Your task to perform on an android device: open app "Adobe Acrobat Reader" (install if not already installed) Image 0: 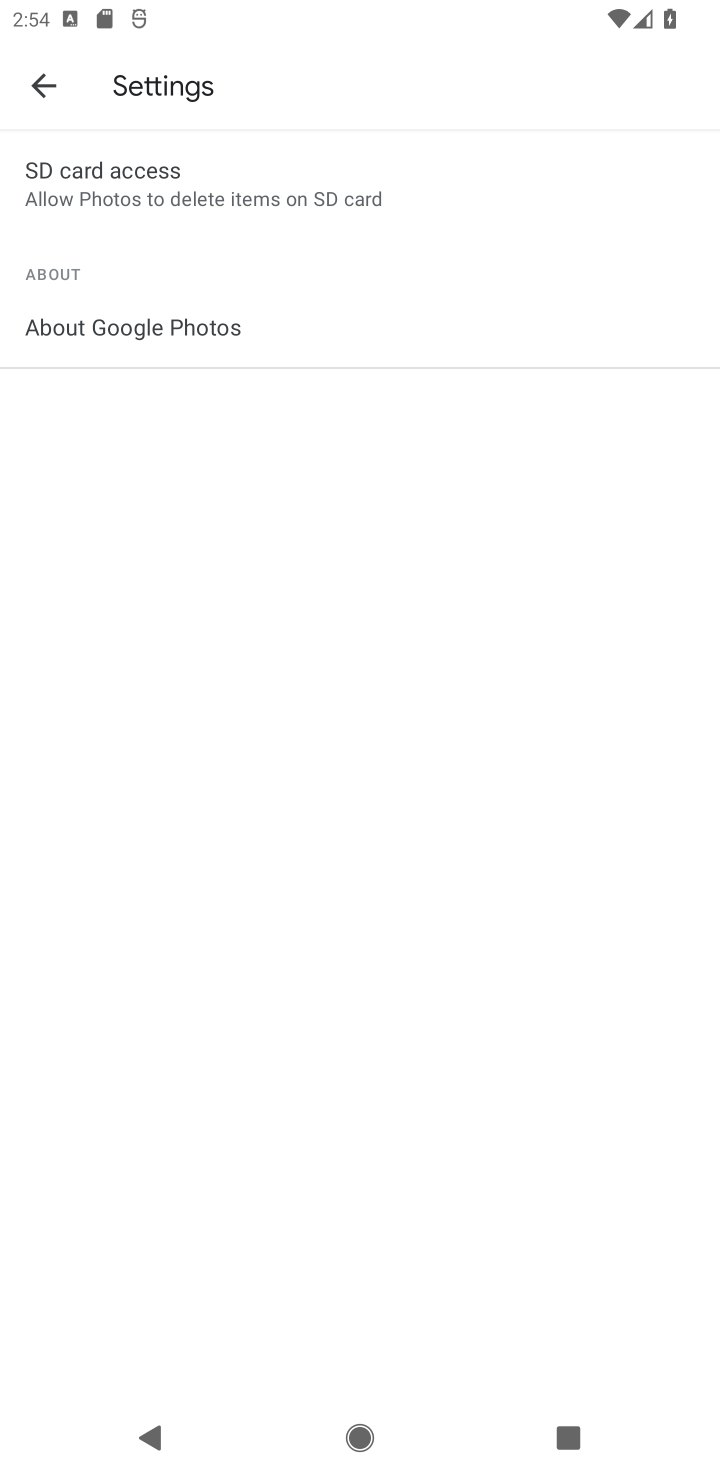
Step 0: press home button
Your task to perform on an android device: open app "Adobe Acrobat Reader" (install if not already installed) Image 1: 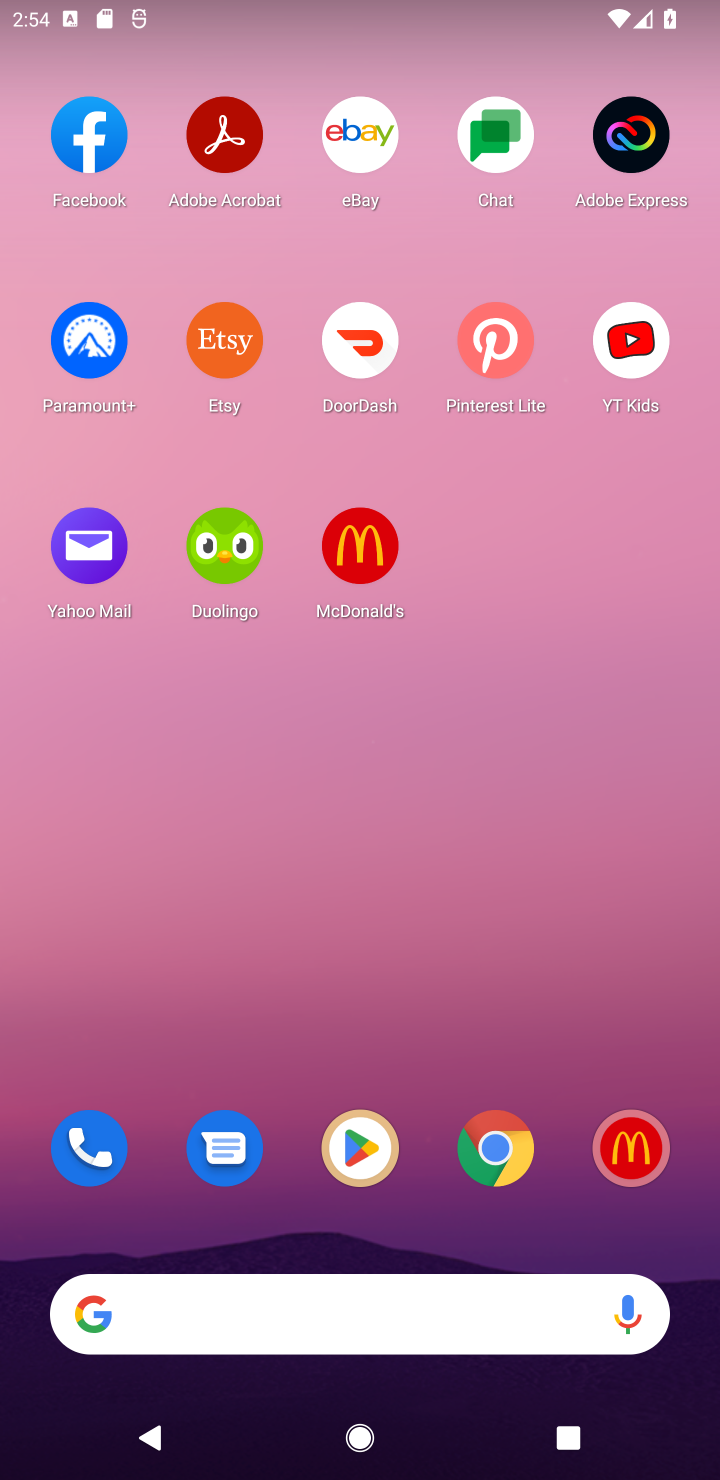
Step 1: drag from (408, 1241) to (567, 364)
Your task to perform on an android device: open app "Adobe Acrobat Reader" (install if not already installed) Image 2: 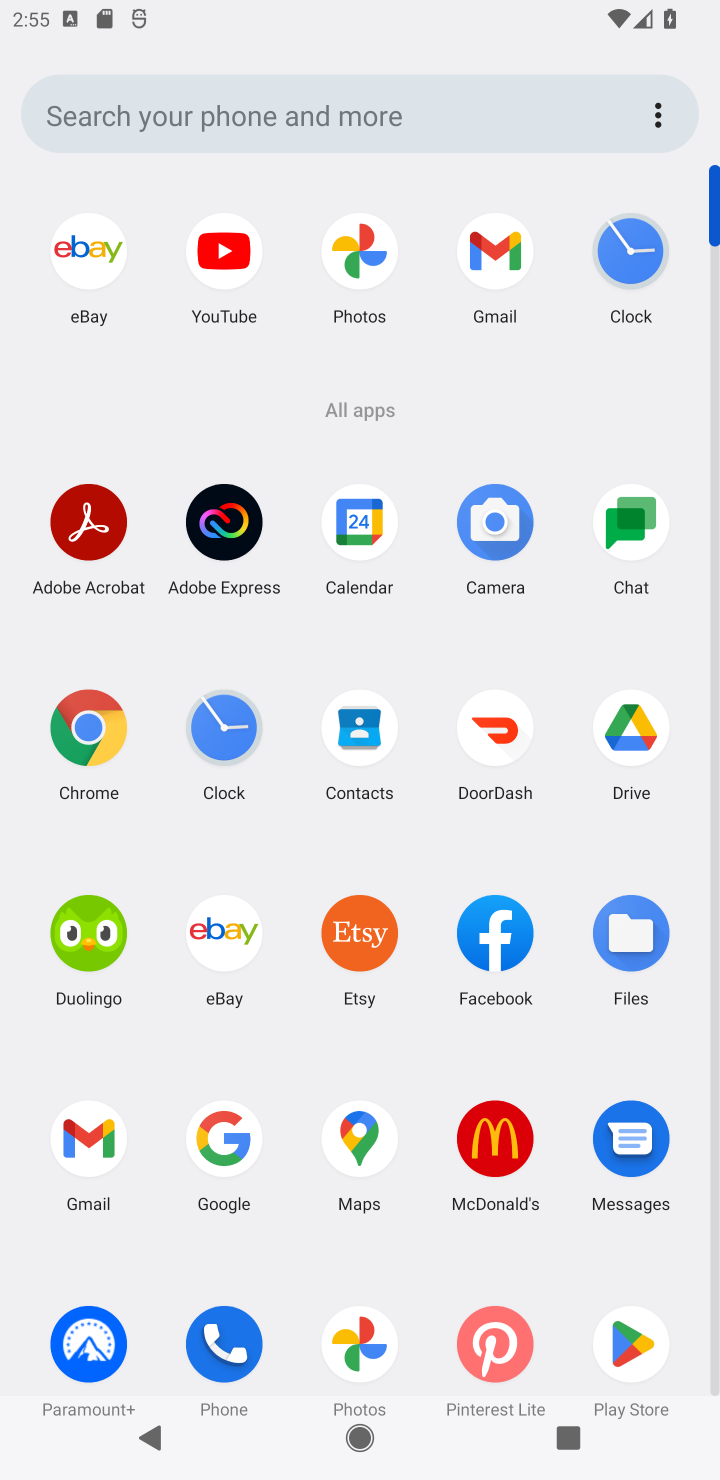
Step 2: click (631, 1342)
Your task to perform on an android device: open app "Adobe Acrobat Reader" (install if not already installed) Image 3: 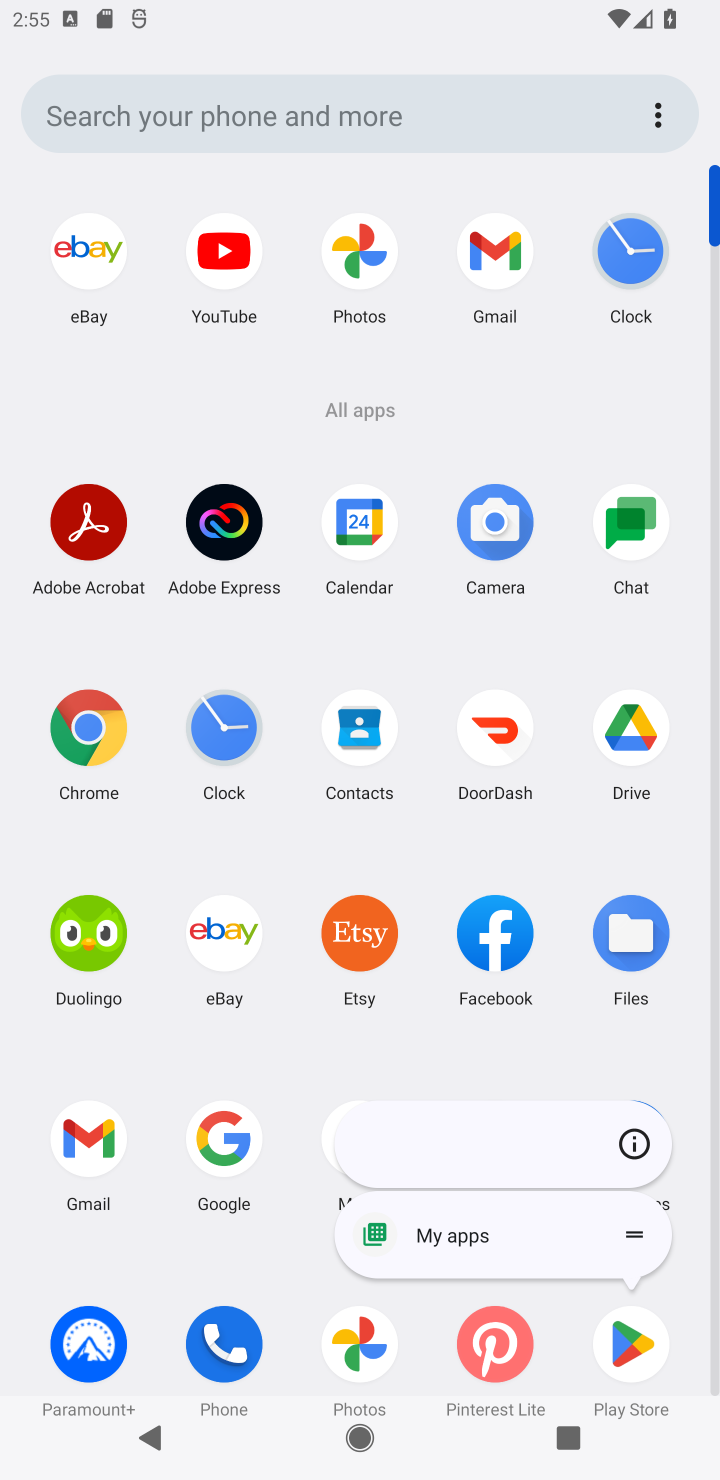
Step 3: click (631, 1342)
Your task to perform on an android device: open app "Adobe Acrobat Reader" (install if not already installed) Image 4: 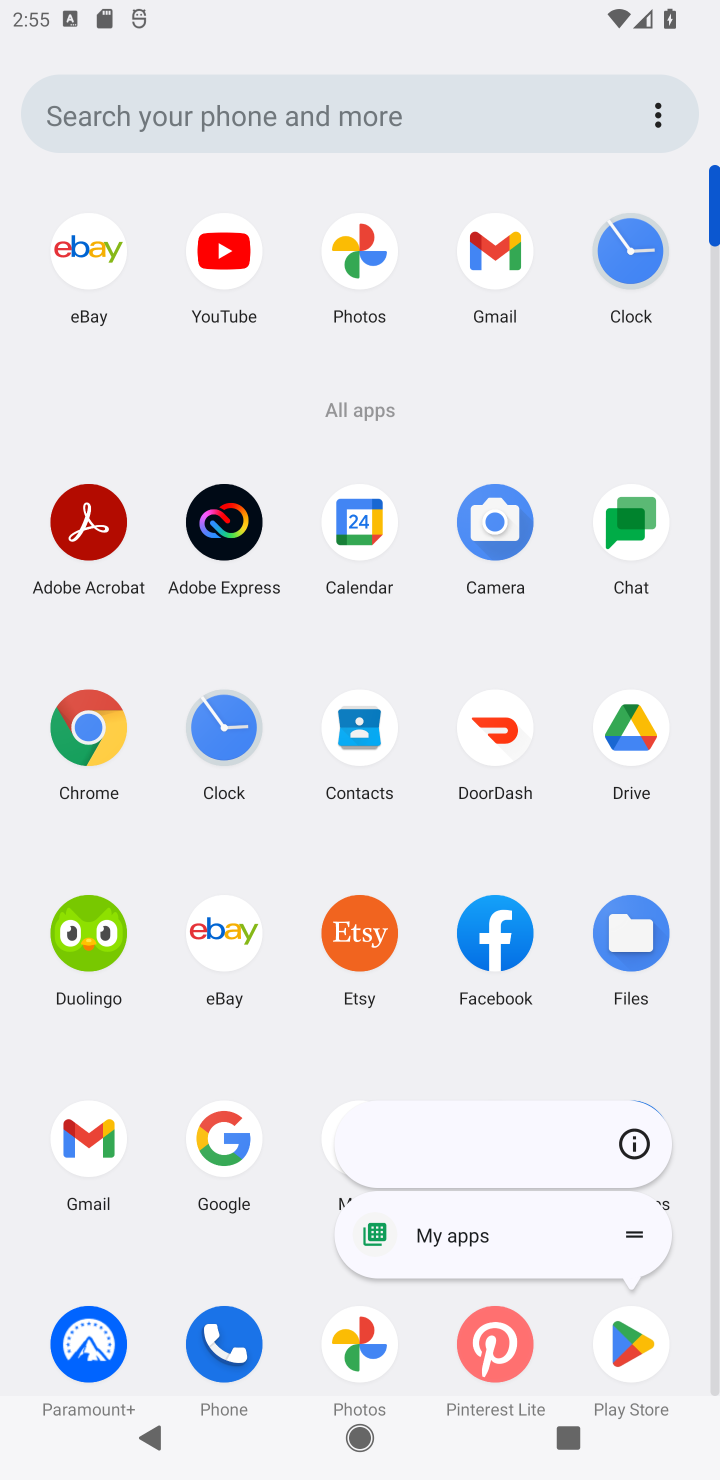
Step 4: click (631, 1342)
Your task to perform on an android device: open app "Adobe Acrobat Reader" (install if not already installed) Image 5: 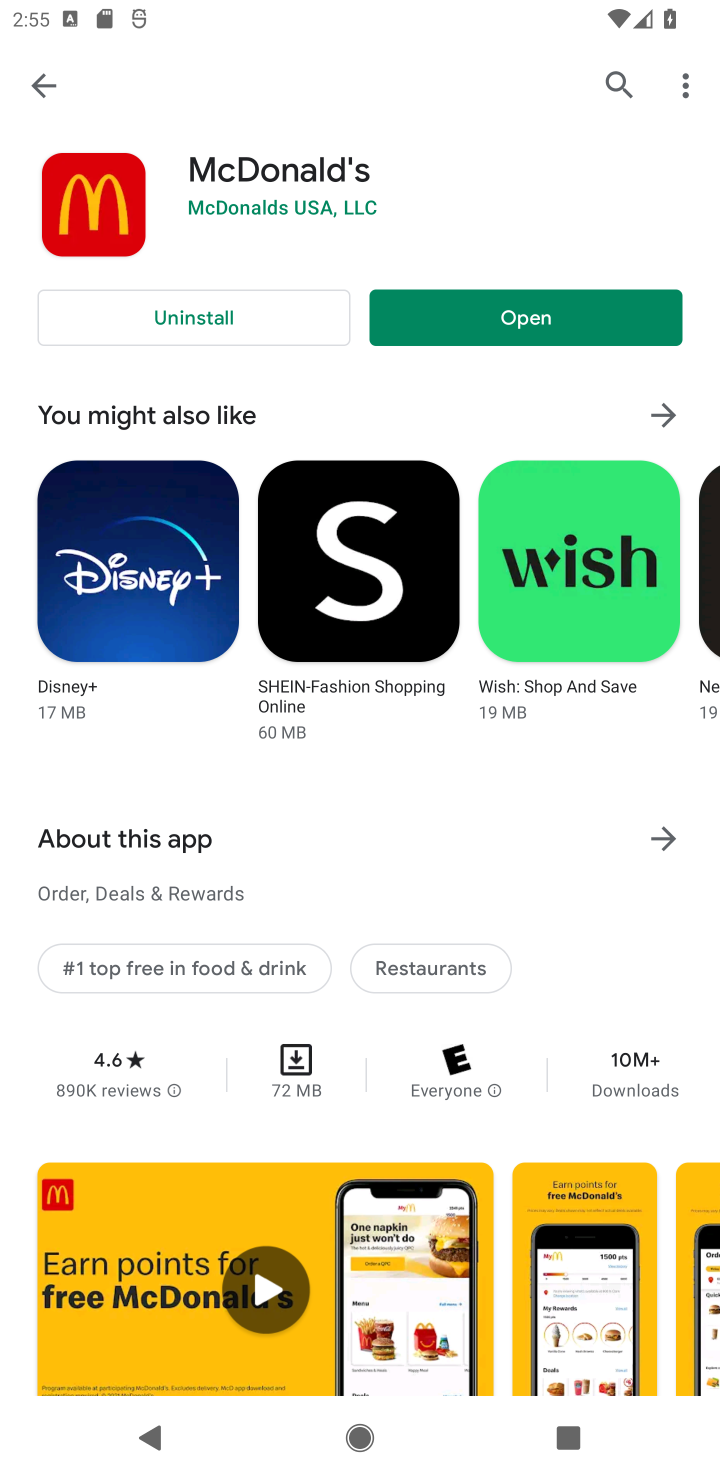
Step 5: click (29, 83)
Your task to perform on an android device: open app "Adobe Acrobat Reader" (install if not already installed) Image 6: 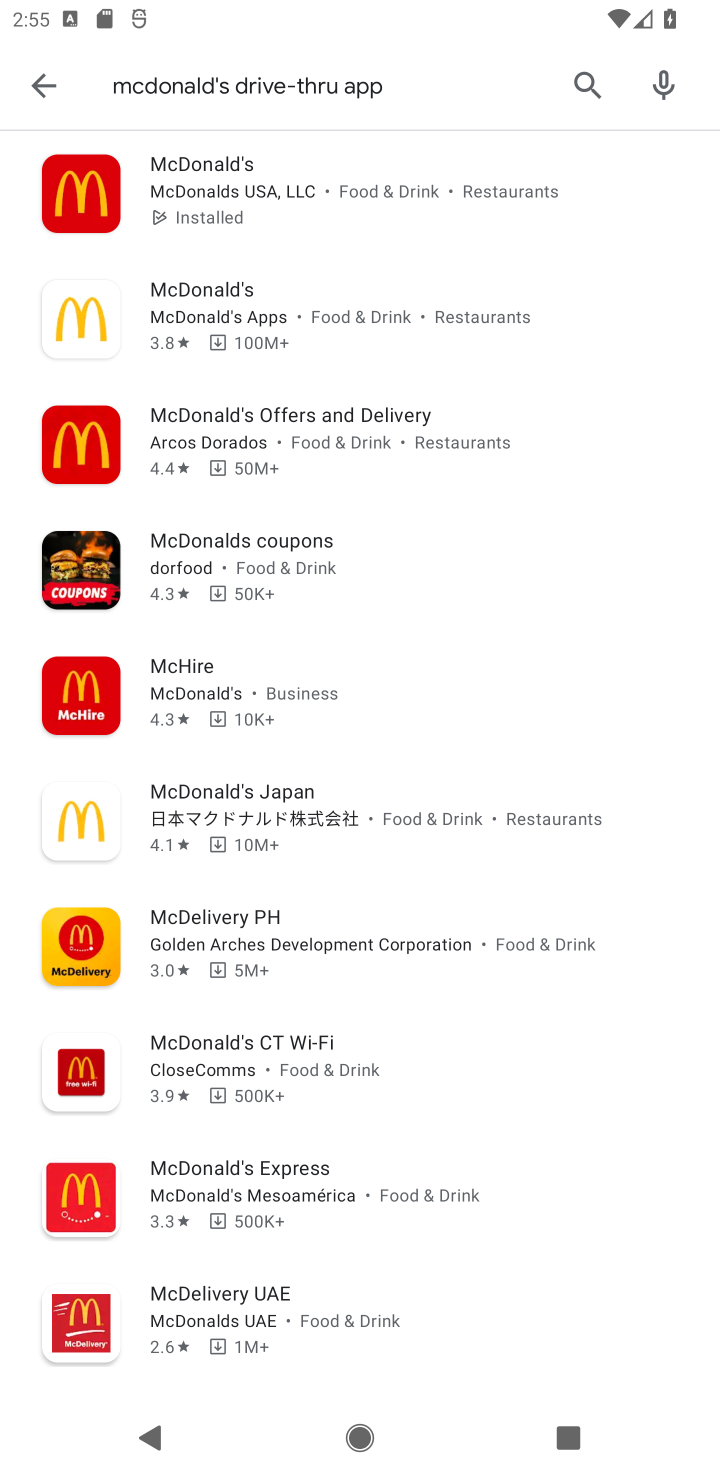
Step 6: click (584, 75)
Your task to perform on an android device: open app "Adobe Acrobat Reader" (install if not already installed) Image 7: 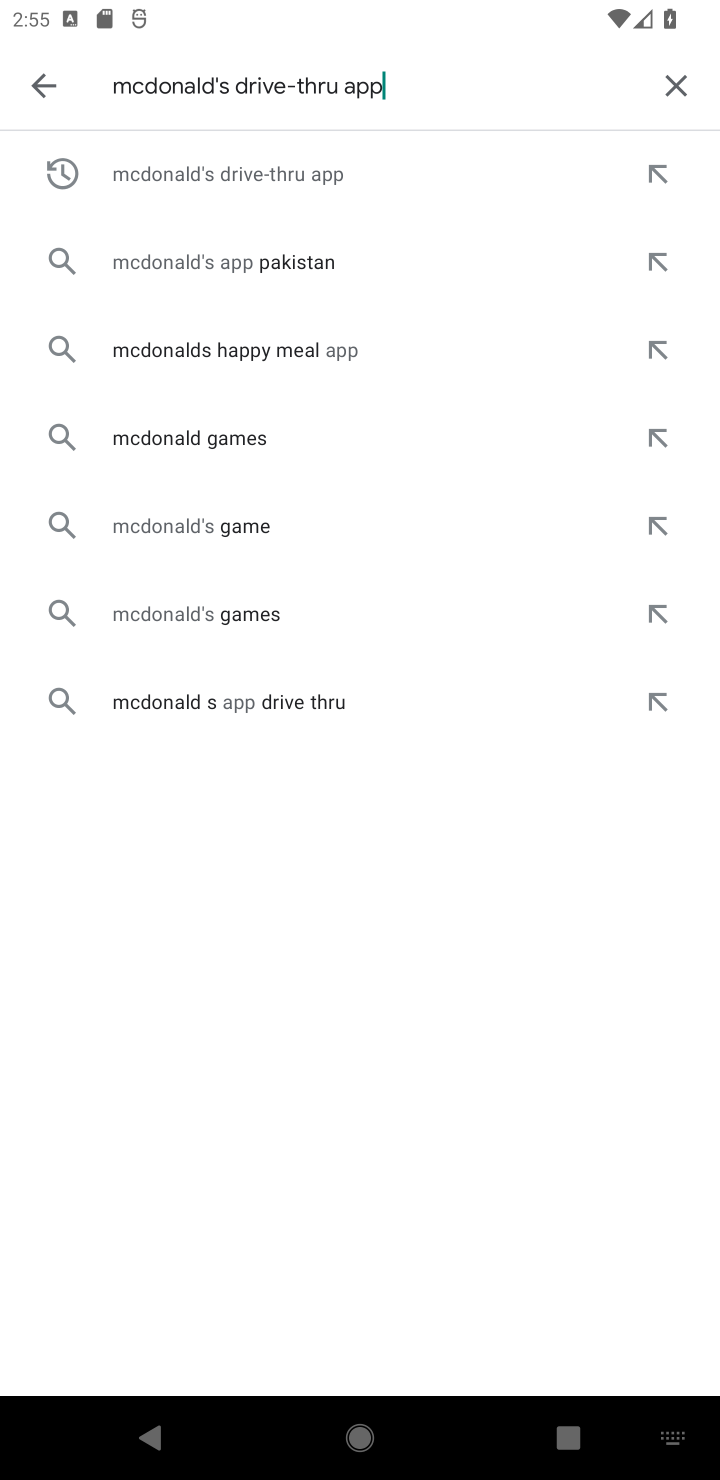
Step 7: click (680, 69)
Your task to perform on an android device: open app "Adobe Acrobat Reader" (install if not already installed) Image 8: 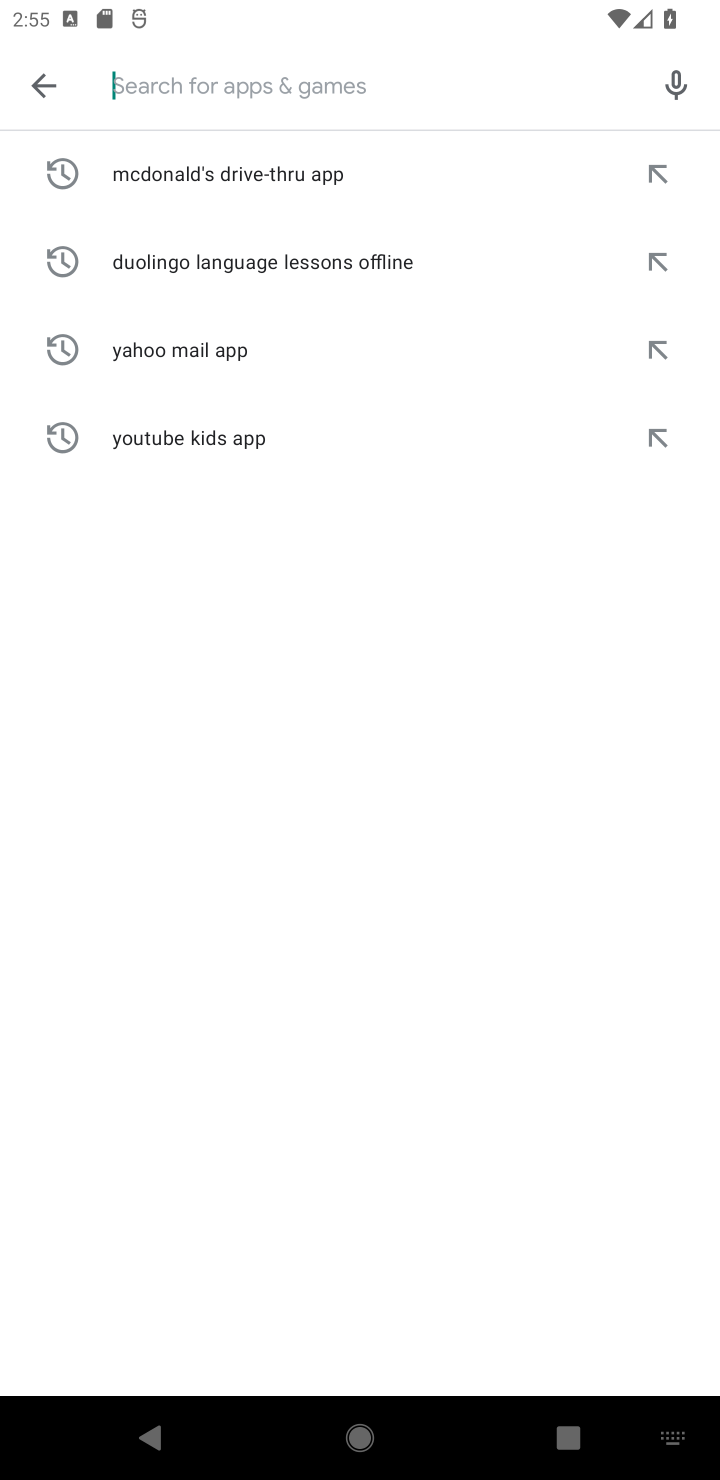
Step 8: click (285, 81)
Your task to perform on an android device: open app "Adobe Acrobat Reader" (install if not already installed) Image 9: 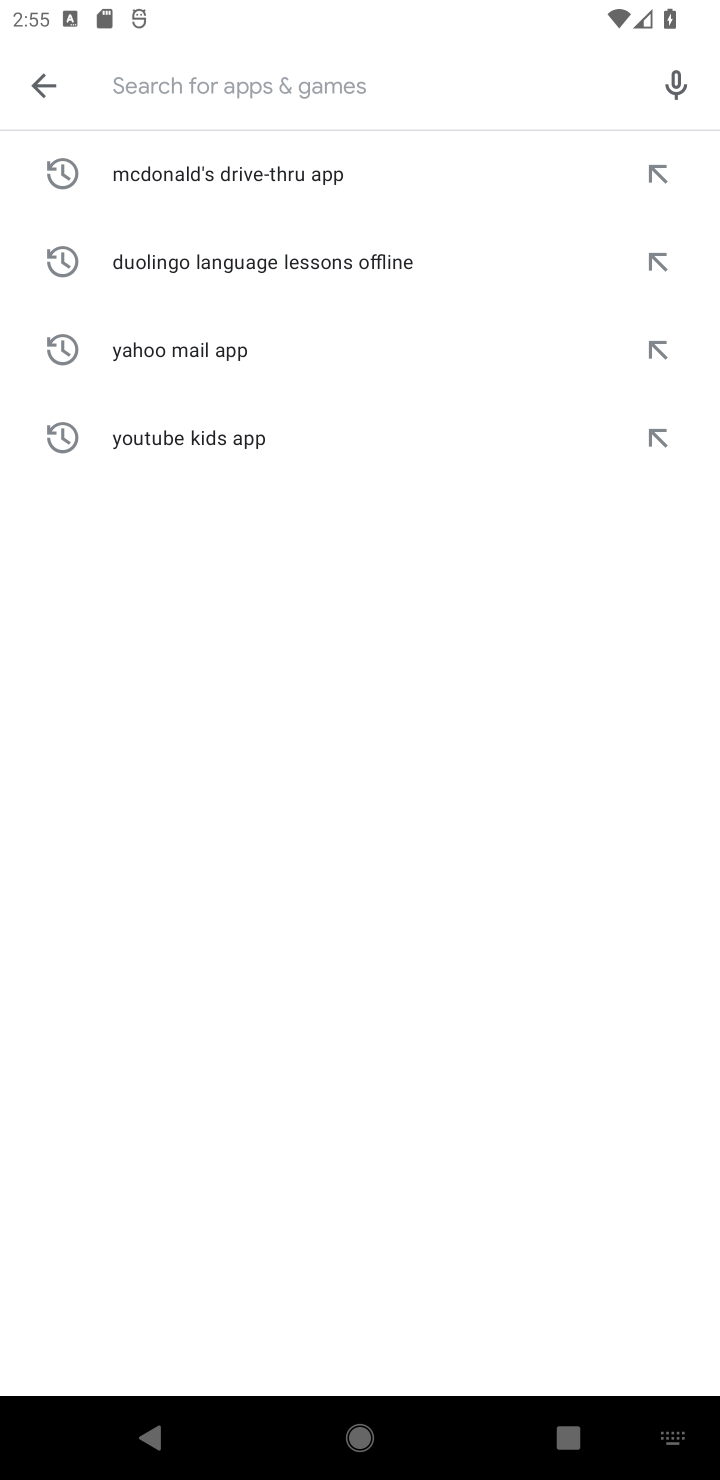
Step 9: type "Adobe Acrobat Reader "
Your task to perform on an android device: open app "Adobe Acrobat Reader" (install if not already installed) Image 10: 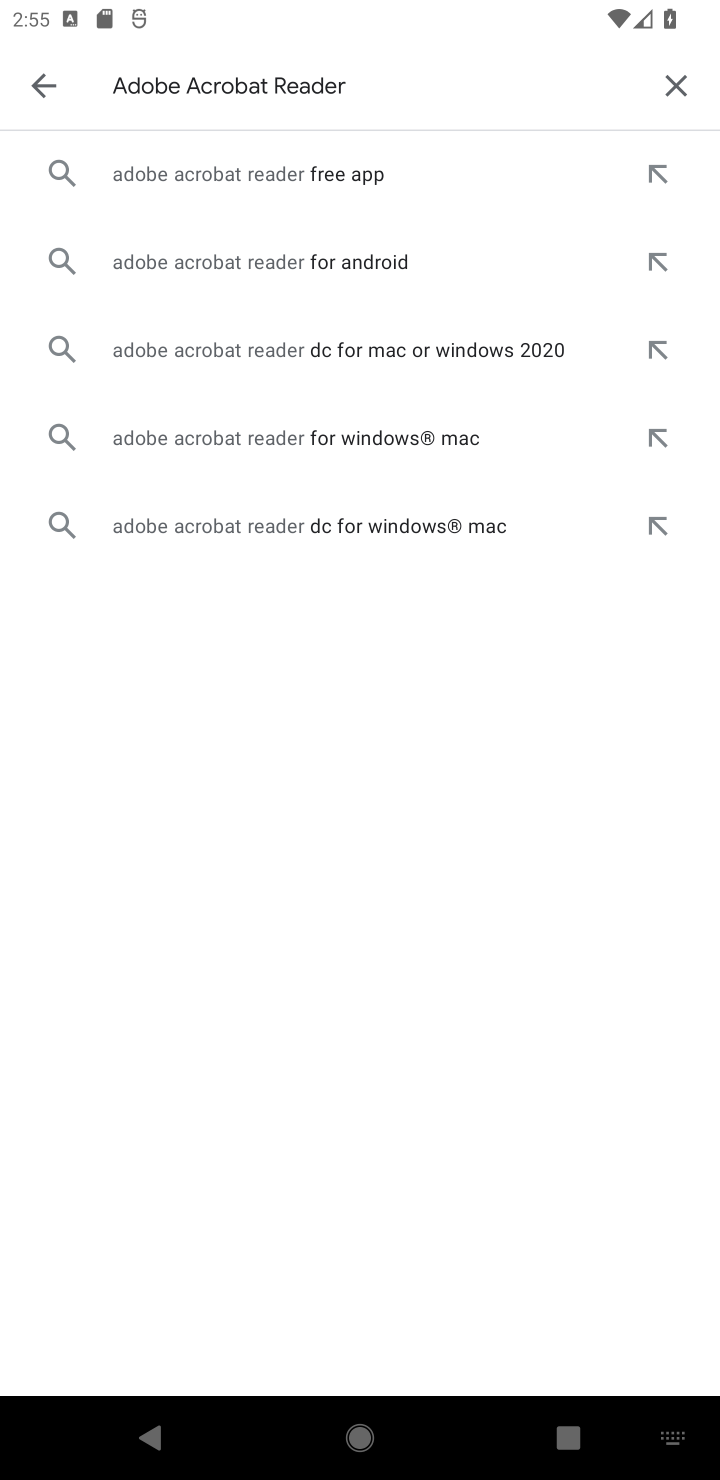
Step 10: click (334, 183)
Your task to perform on an android device: open app "Adobe Acrobat Reader" (install if not already installed) Image 11: 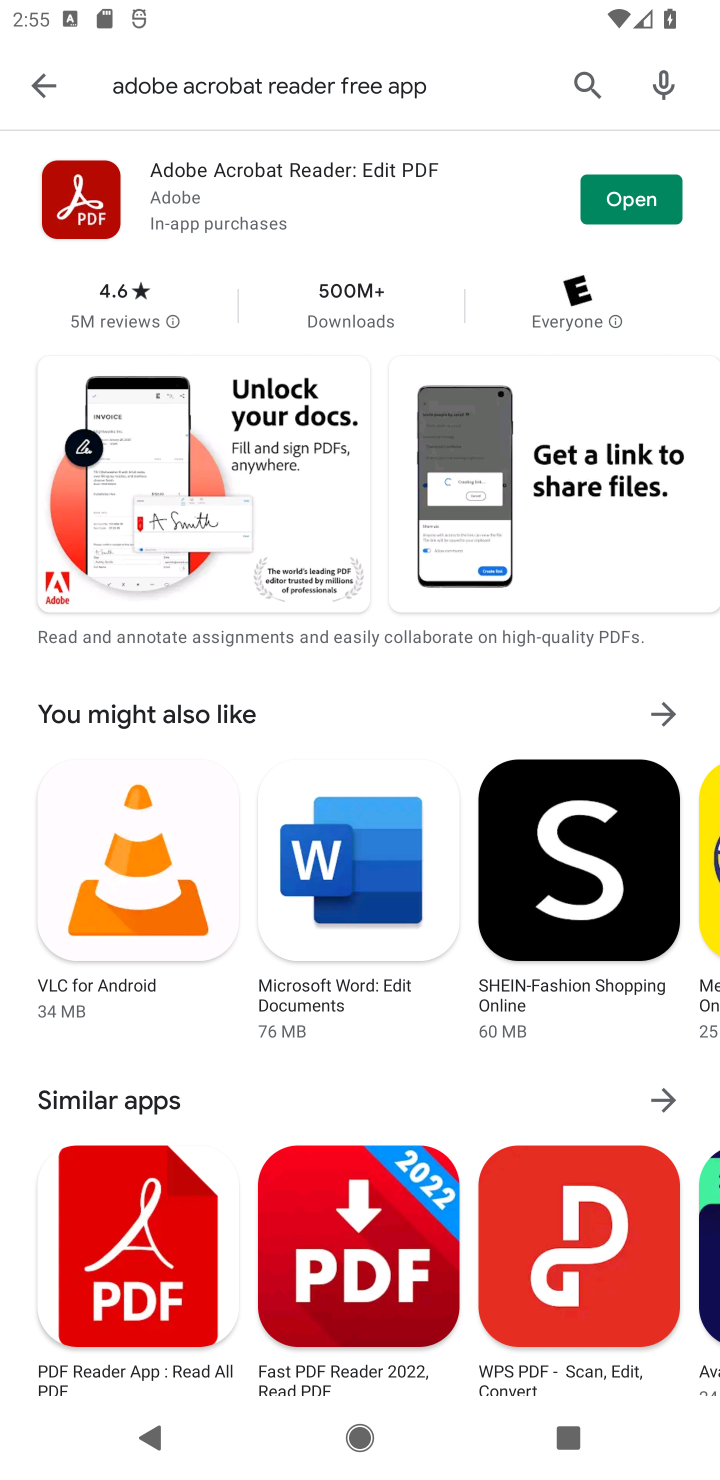
Step 11: click (627, 190)
Your task to perform on an android device: open app "Adobe Acrobat Reader" (install if not already installed) Image 12: 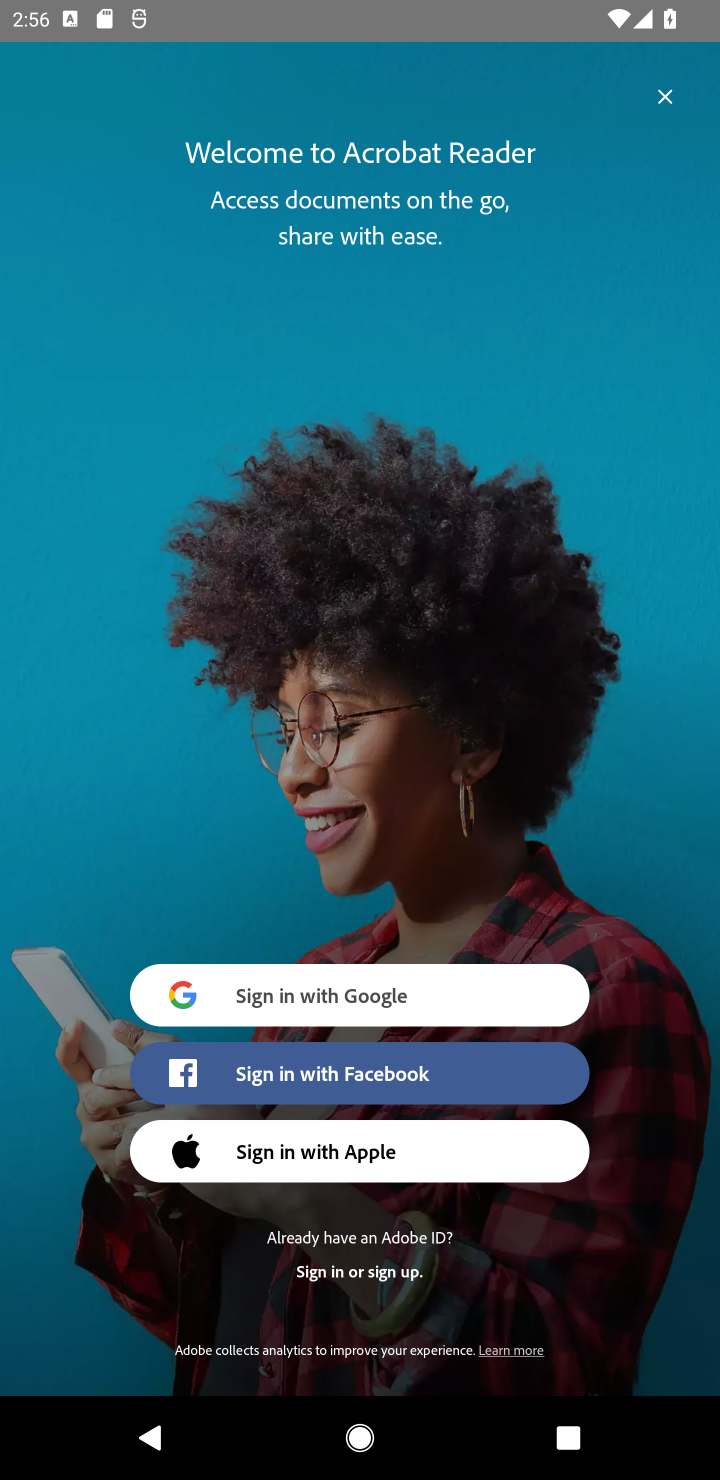
Step 12: task complete